Your task to perform on an android device: change keyboard looks Image 0: 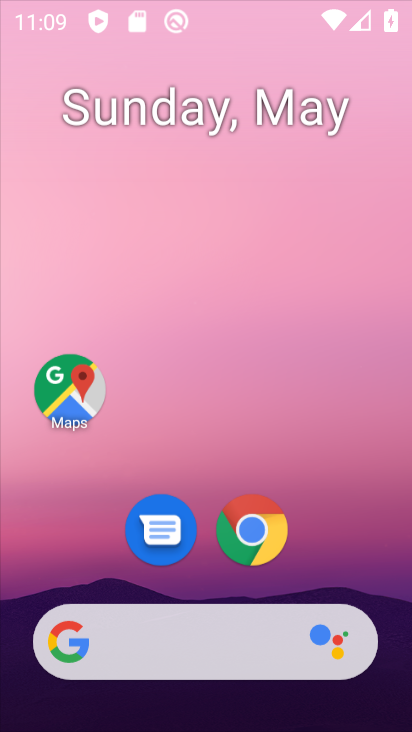
Step 0: click (255, 52)
Your task to perform on an android device: change keyboard looks Image 1: 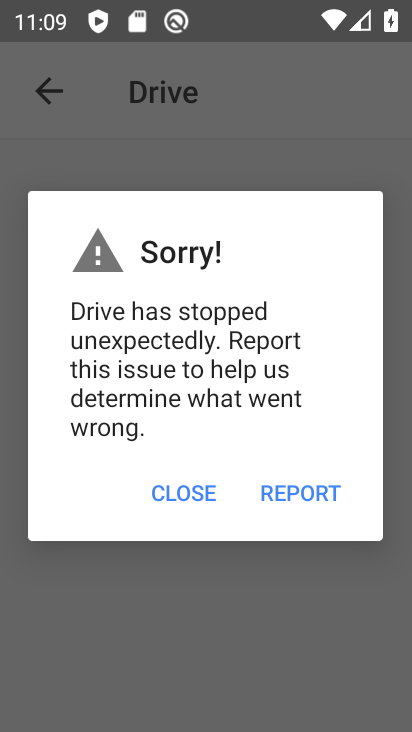
Step 1: press back button
Your task to perform on an android device: change keyboard looks Image 2: 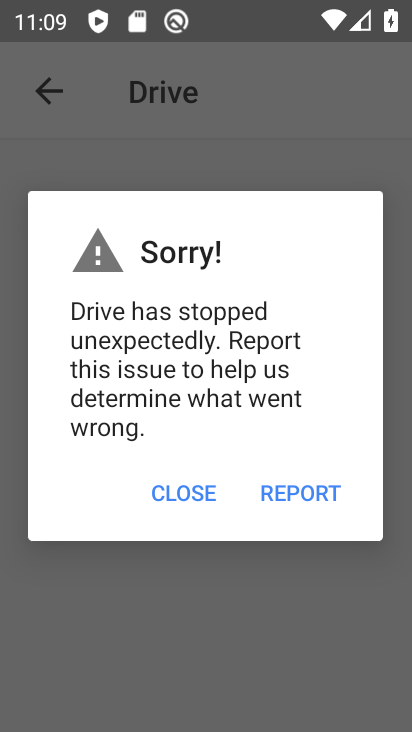
Step 2: press home button
Your task to perform on an android device: change keyboard looks Image 3: 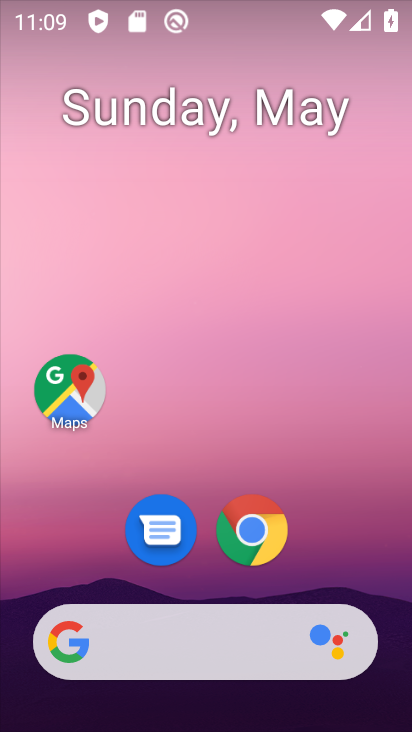
Step 3: drag from (177, 564) to (248, 50)
Your task to perform on an android device: change keyboard looks Image 4: 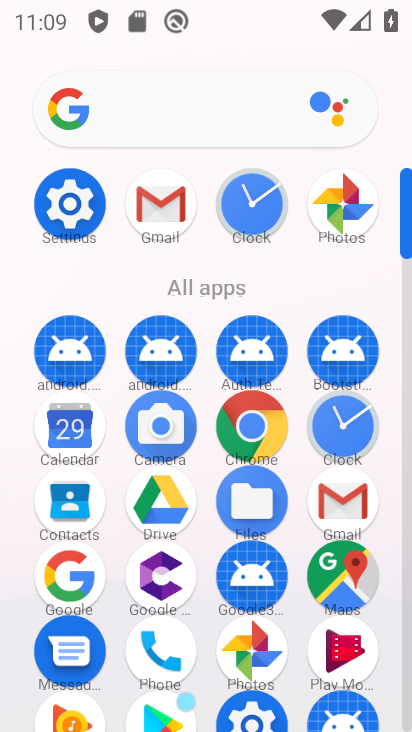
Step 4: click (62, 195)
Your task to perform on an android device: change keyboard looks Image 5: 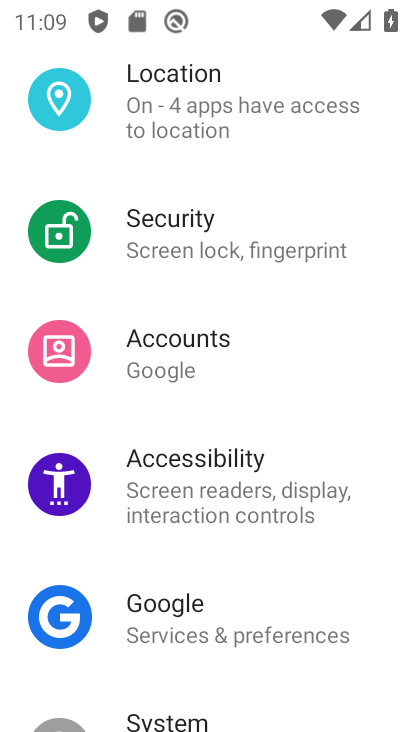
Step 5: drag from (188, 701) to (309, 38)
Your task to perform on an android device: change keyboard looks Image 6: 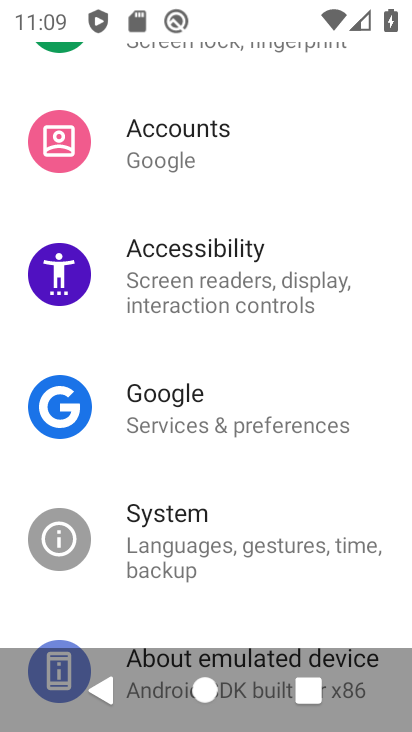
Step 6: click (186, 511)
Your task to perform on an android device: change keyboard looks Image 7: 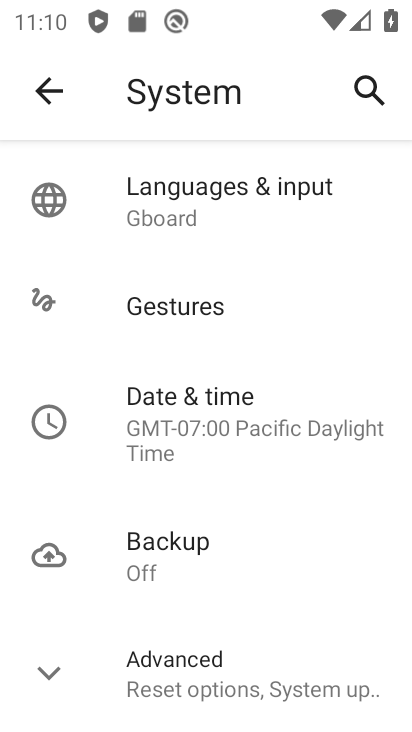
Step 7: drag from (205, 682) to (299, 82)
Your task to perform on an android device: change keyboard looks Image 8: 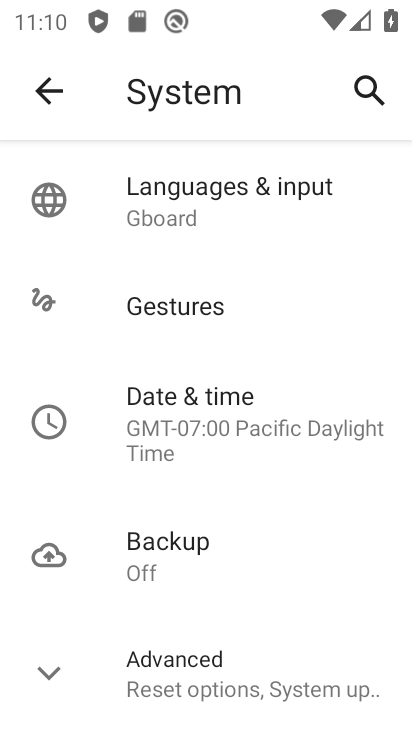
Step 8: click (200, 194)
Your task to perform on an android device: change keyboard looks Image 9: 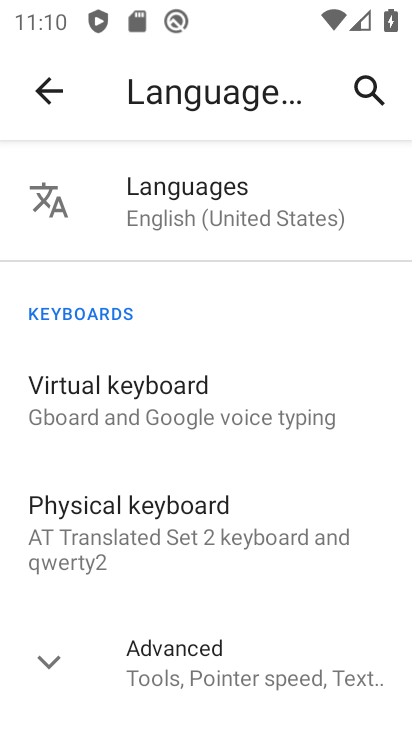
Step 9: click (152, 384)
Your task to perform on an android device: change keyboard looks Image 10: 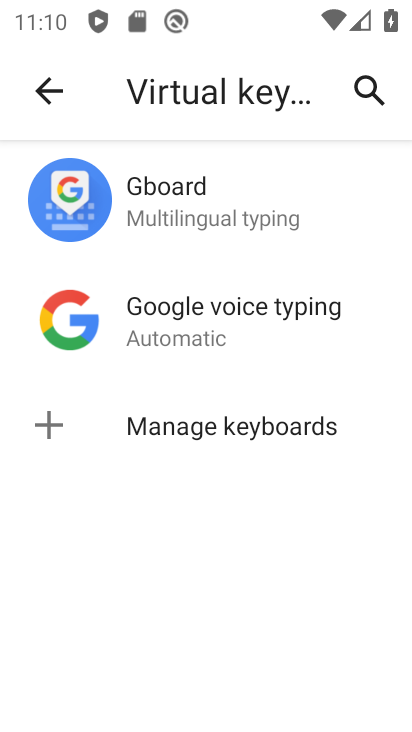
Step 10: click (173, 199)
Your task to perform on an android device: change keyboard looks Image 11: 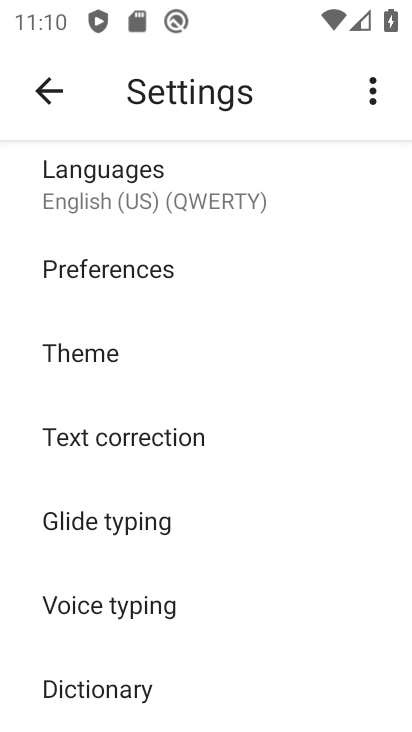
Step 11: click (94, 351)
Your task to perform on an android device: change keyboard looks Image 12: 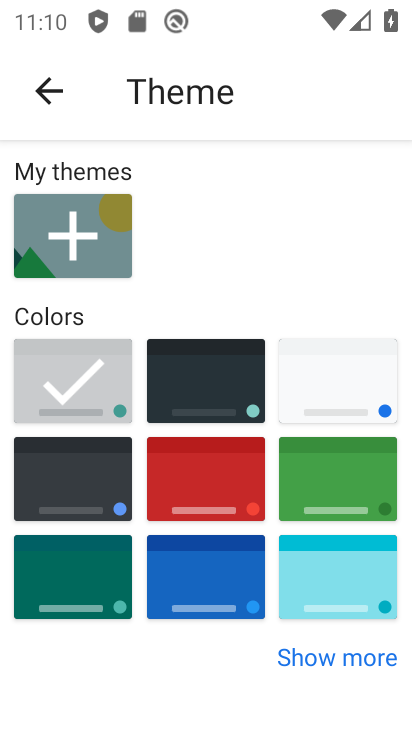
Step 12: click (188, 499)
Your task to perform on an android device: change keyboard looks Image 13: 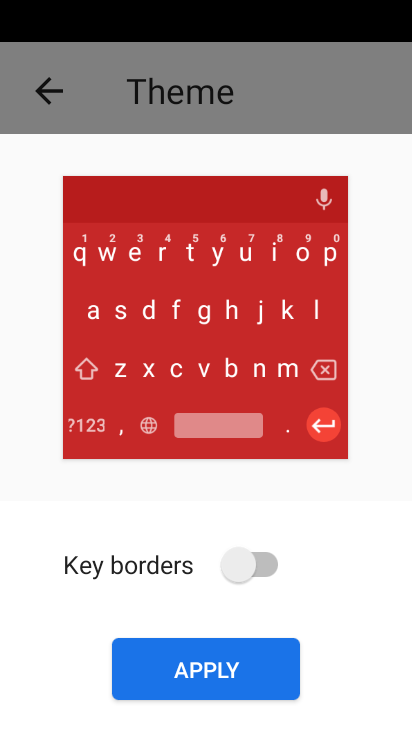
Step 13: click (215, 677)
Your task to perform on an android device: change keyboard looks Image 14: 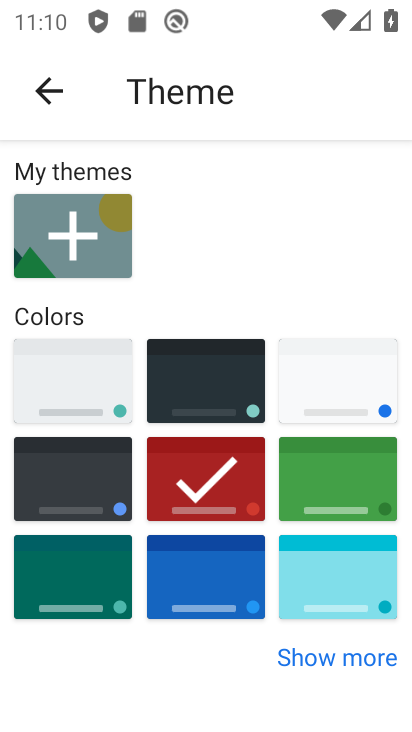
Step 14: task complete